Your task to perform on an android device: toggle wifi Image 0: 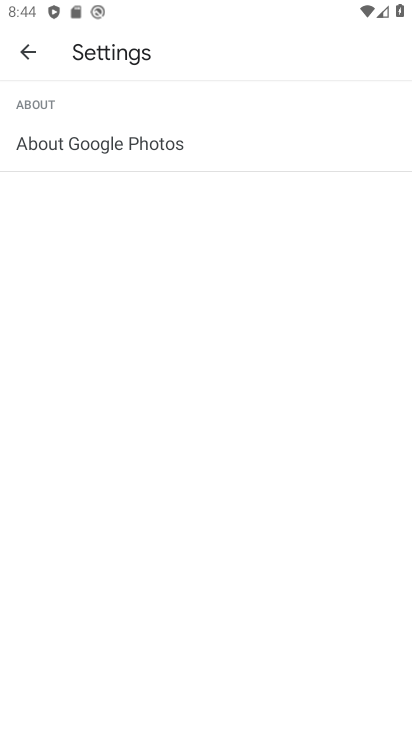
Step 0: task complete